Your task to perform on an android device: turn on airplane mode Image 0: 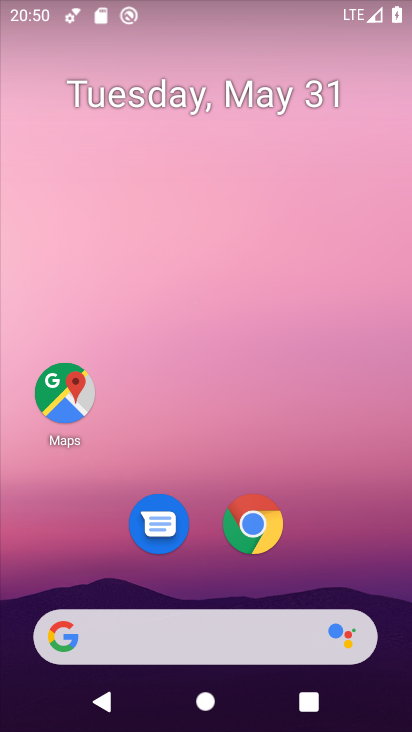
Step 0: drag from (309, 523) to (283, 3)
Your task to perform on an android device: turn on airplane mode Image 1: 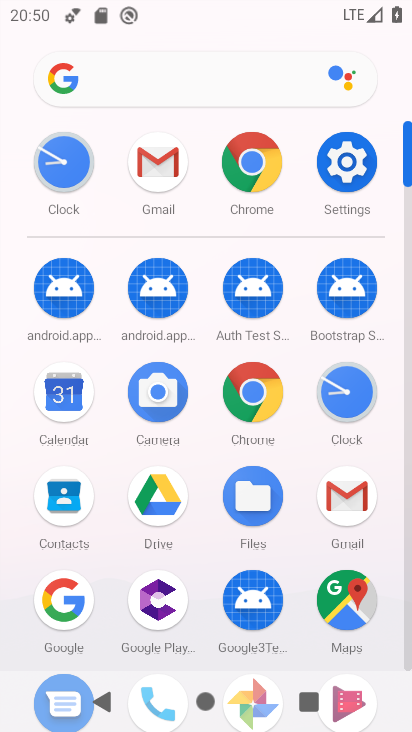
Step 1: click (341, 164)
Your task to perform on an android device: turn on airplane mode Image 2: 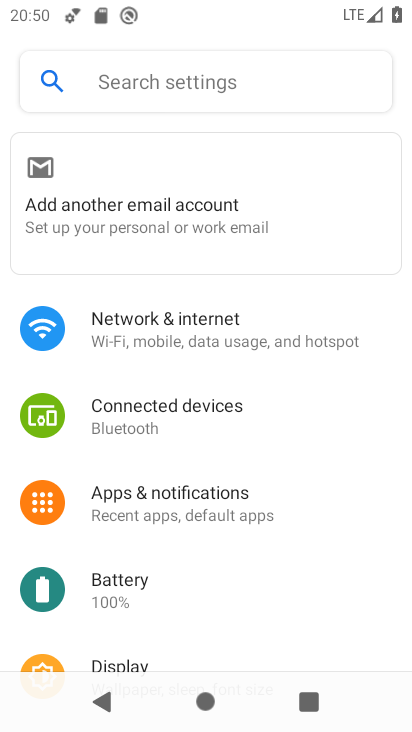
Step 2: click (265, 334)
Your task to perform on an android device: turn on airplane mode Image 3: 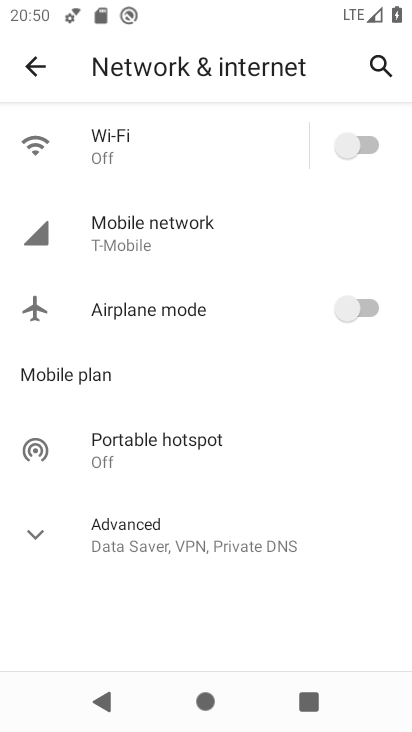
Step 3: click (355, 298)
Your task to perform on an android device: turn on airplane mode Image 4: 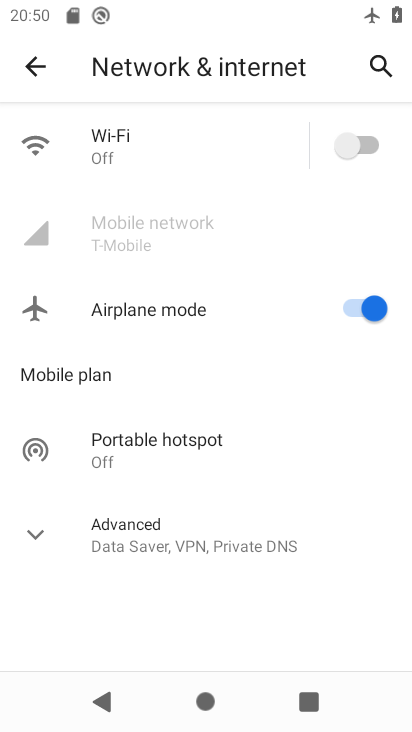
Step 4: task complete